Your task to perform on an android device: turn on notifications settings in the gmail app Image 0: 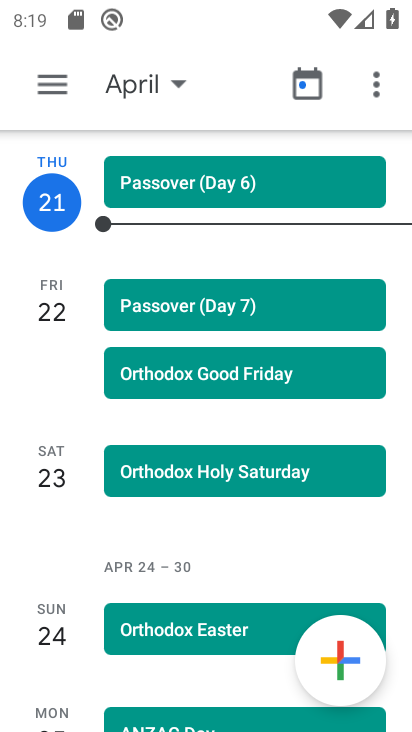
Step 0: press home button
Your task to perform on an android device: turn on notifications settings in the gmail app Image 1: 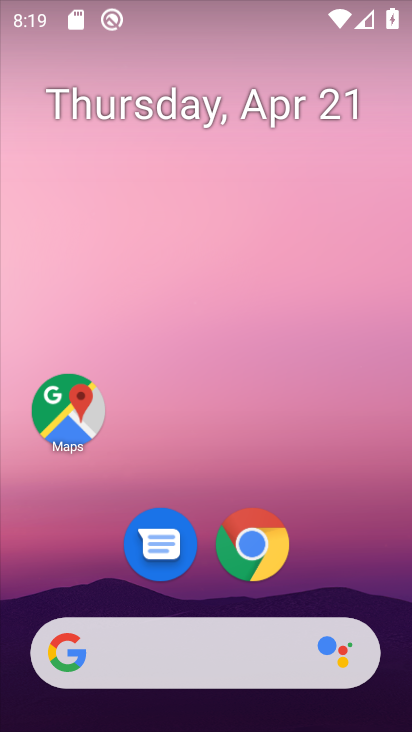
Step 1: drag from (211, 598) to (210, 127)
Your task to perform on an android device: turn on notifications settings in the gmail app Image 2: 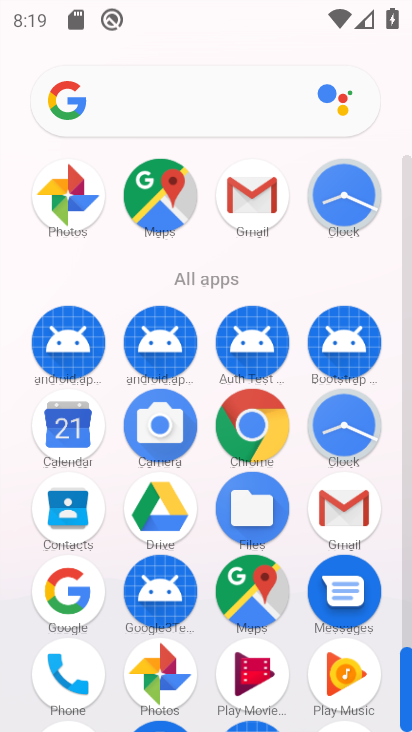
Step 2: click (345, 508)
Your task to perform on an android device: turn on notifications settings in the gmail app Image 3: 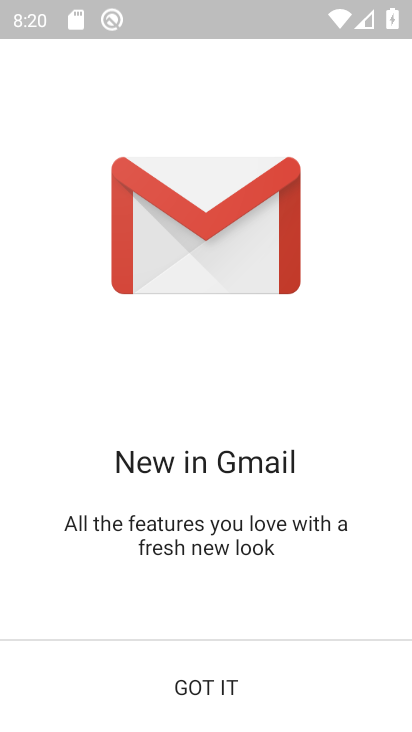
Step 3: click (213, 680)
Your task to perform on an android device: turn on notifications settings in the gmail app Image 4: 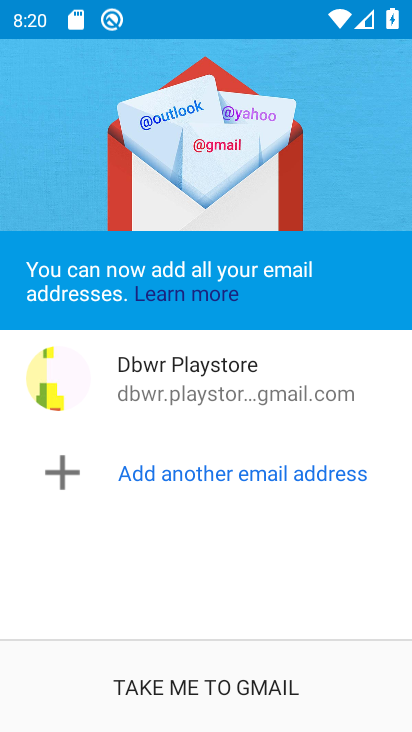
Step 4: click (213, 680)
Your task to perform on an android device: turn on notifications settings in the gmail app Image 5: 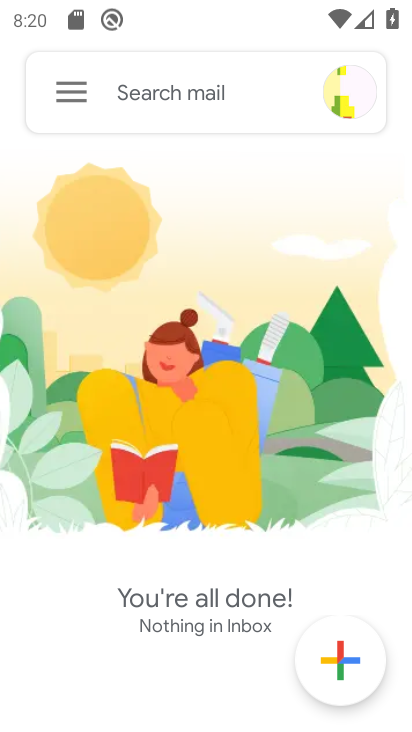
Step 5: click (60, 89)
Your task to perform on an android device: turn on notifications settings in the gmail app Image 6: 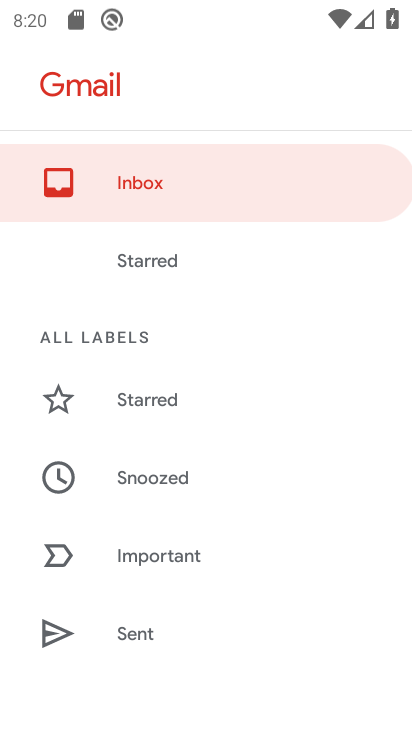
Step 6: drag from (193, 633) to (222, 227)
Your task to perform on an android device: turn on notifications settings in the gmail app Image 7: 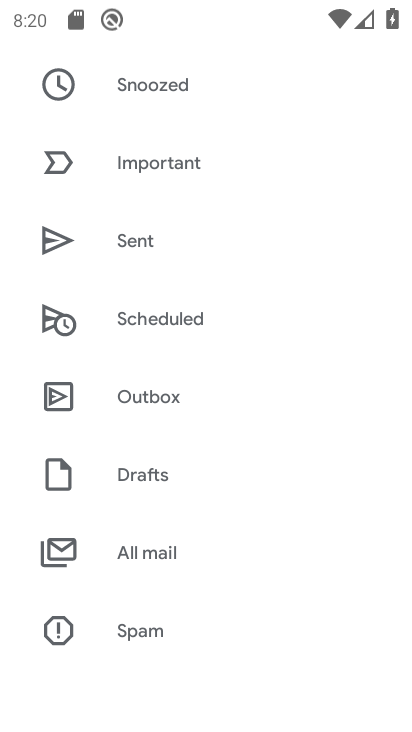
Step 7: drag from (210, 605) to (212, 258)
Your task to perform on an android device: turn on notifications settings in the gmail app Image 8: 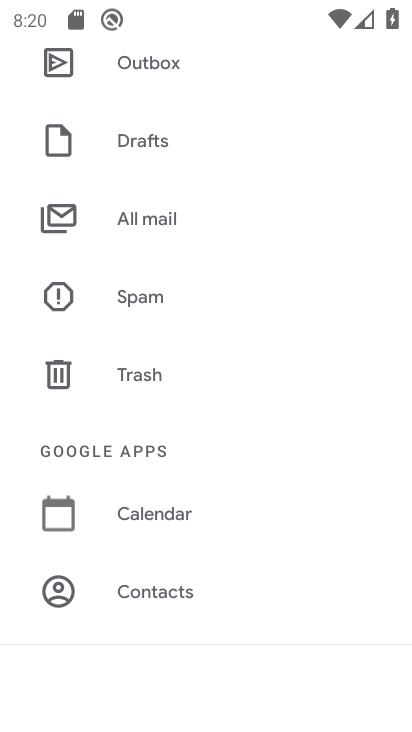
Step 8: drag from (211, 561) to (214, 262)
Your task to perform on an android device: turn on notifications settings in the gmail app Image 9: 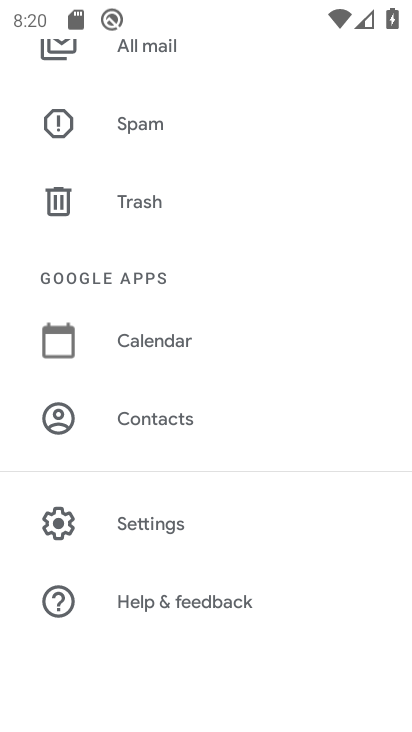
Step 9: click (140, 525)
Your task to perform on an android device: turn on notifications settings in the gmail app Image 10: 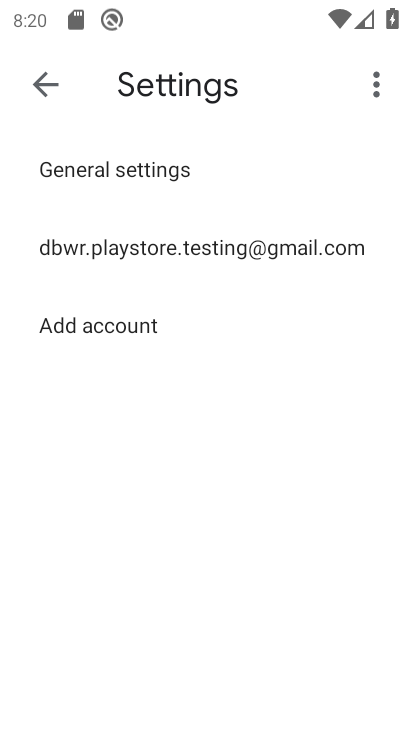
Step 10: click (206, 253)
Your task to perform on an android device: turn on notifications settings in the gmail app Image 11: 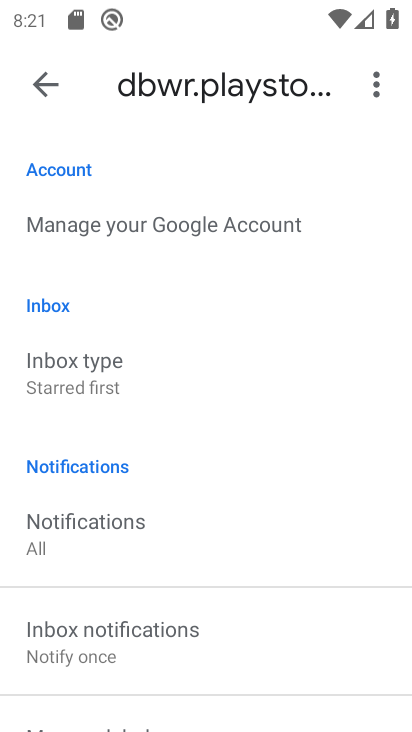
Step 11: task complete